Your task to perform on an android device: all mails in gmail Image 0: 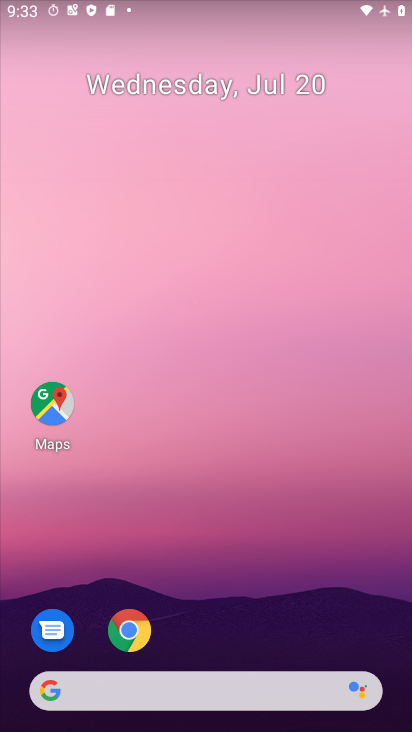
Step 0: drag from (283, 687) to (283, 230)
Your task to perform on an android device: all mails in gmail Image 1: 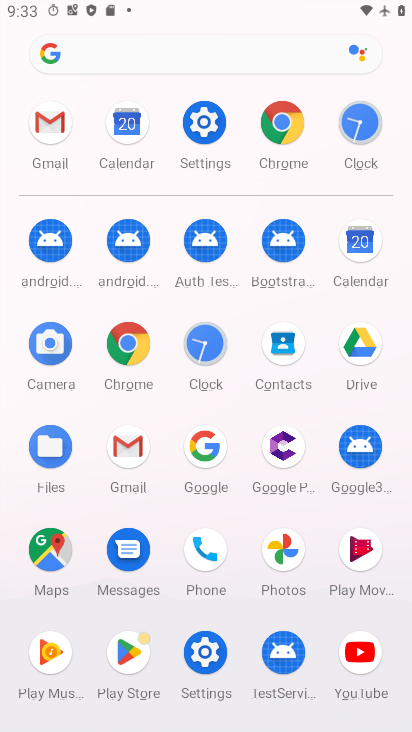
Step 1: click (123, 454)
Your task to perform on an android device: all mails in gmail Image 2: 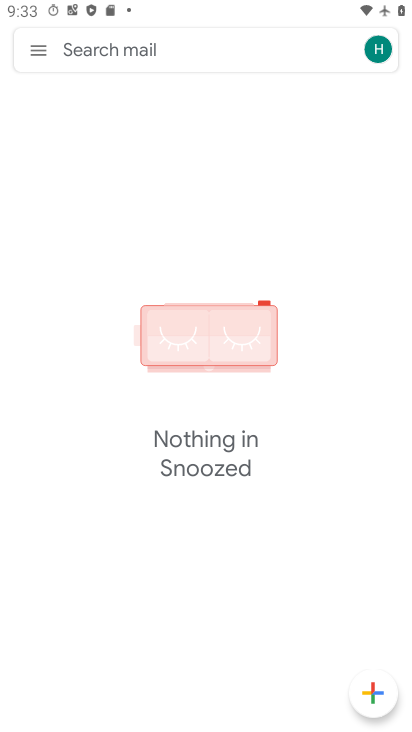
Step 2: click (33, 49)
Your task to perform on an android device: all mails in gmail Image 3: 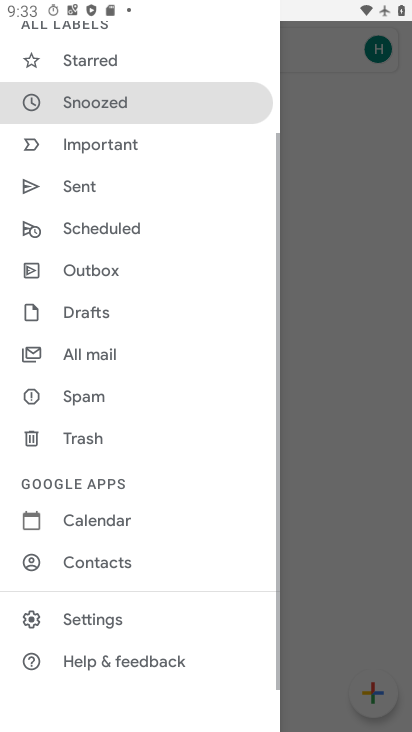
Step 3: click (99, 358)
Your task to perform on an android device: all mails in gmail Image 4: 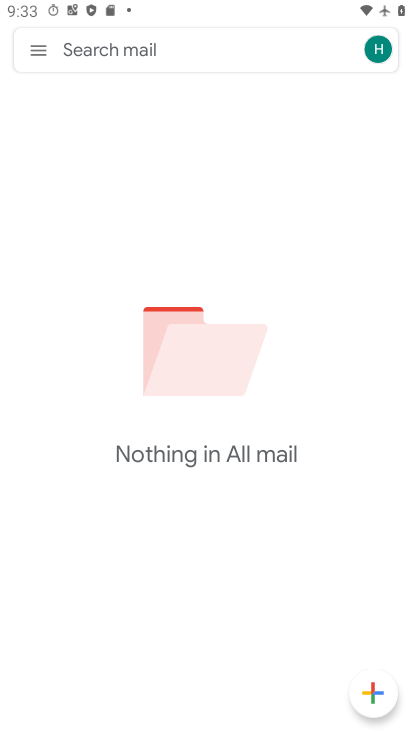
Step 4: task complete